Your task to perform on an android device: add a contact in the contacts app Image 0: 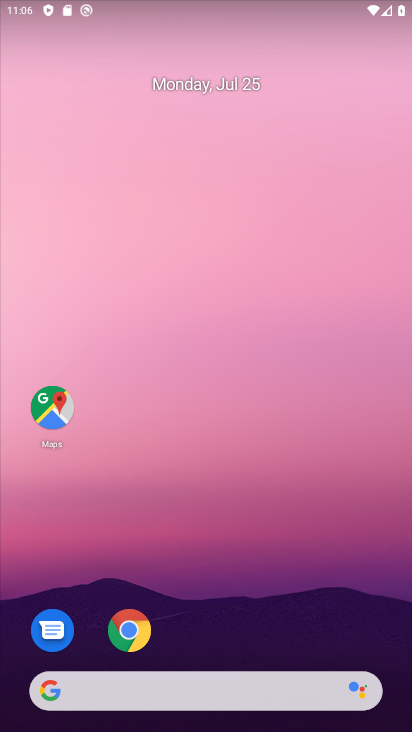
Step 0: drag from (308, 617) to (210, 58)
Your task to perform on an android device: add a contact in the contacts app Image 1: 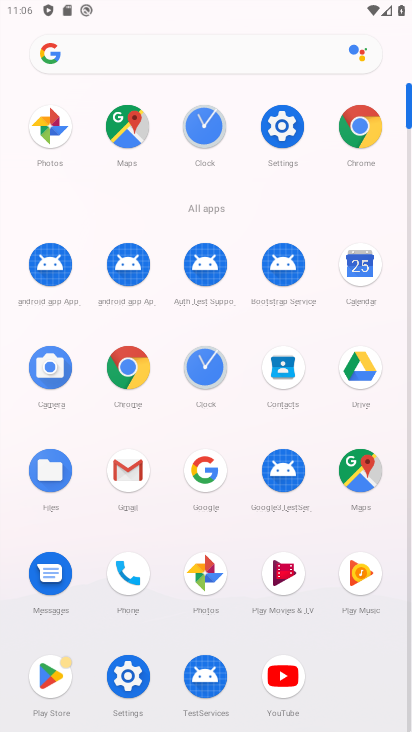
Step 1: click (286, 378)
Your task to perform on an android device: add a contact in the contacts app Image 2: 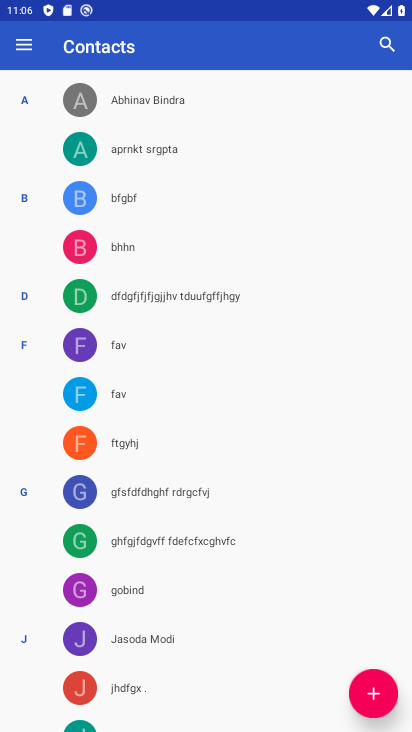
Step 2: click (364, 691)
Your task to perform on an android device: add a contact in the contacts app Image 3: 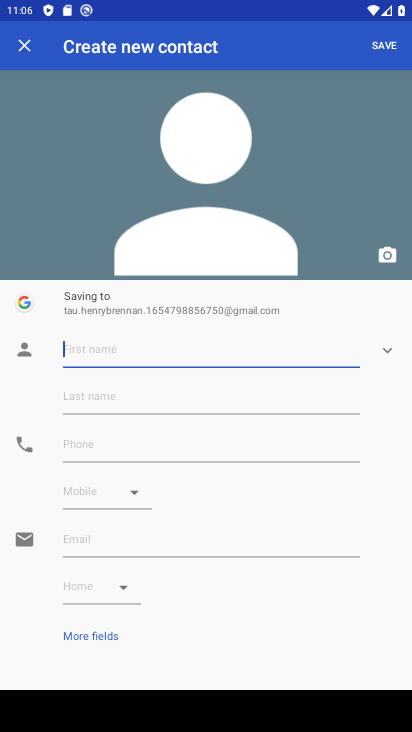
Step 3: type "vfgtyuhjnb"
Your task to perform on an android device: add a contact in the contacts app Image 4: 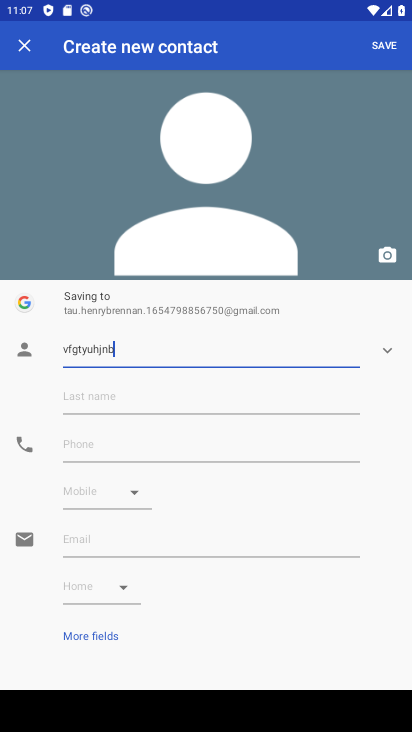
Step 4: click (85, 447)
Your task to perform on an android device: add a contact in the contacts app Image 5: 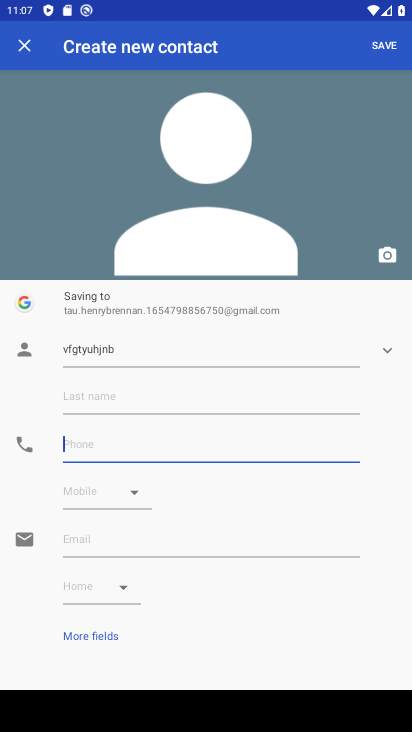
Step 5: type "6789054321"
Your task to perform on an android device: add a contact in the contacts app Image 6: 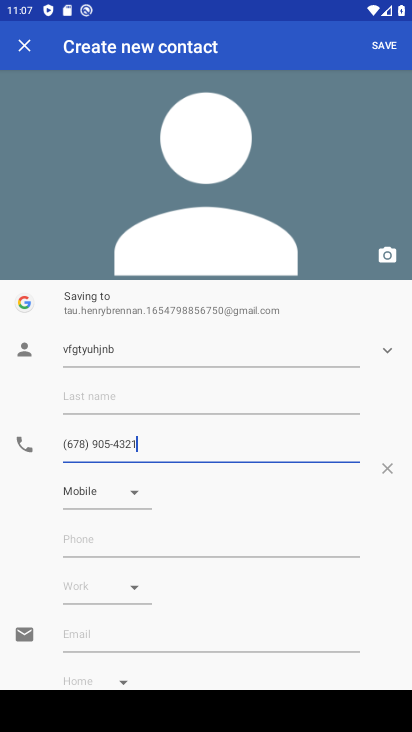
Step 6: click (375, 38)
Your task to perform on an android device: add a contact in the contacts app Image 7: 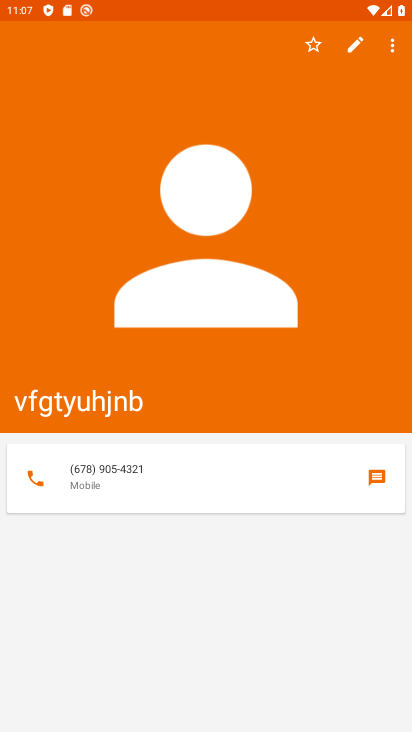
Step 7: task complete